Your task to perform on an android device: change notifications settings Image 0: 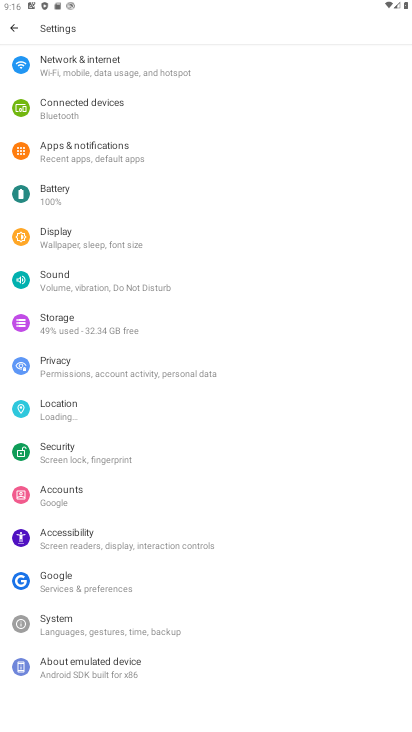
Step 0: press home button
Your task to perform on an android device: change notifications settings Image 1: 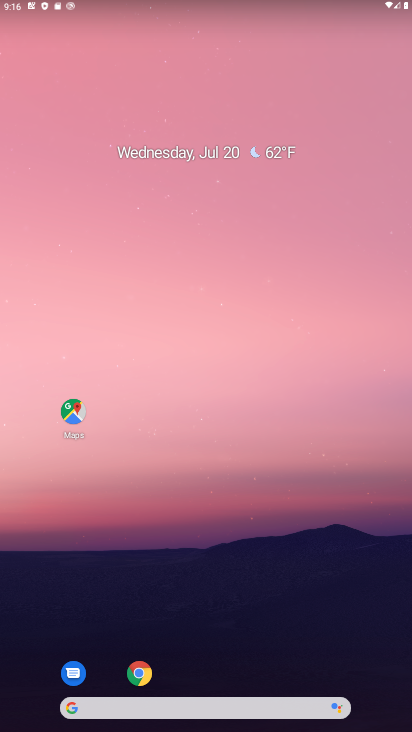
Step 1: drag from (362, 576) to (299, 61)
Your task to perform on an android device: change notifications settings Image 2: 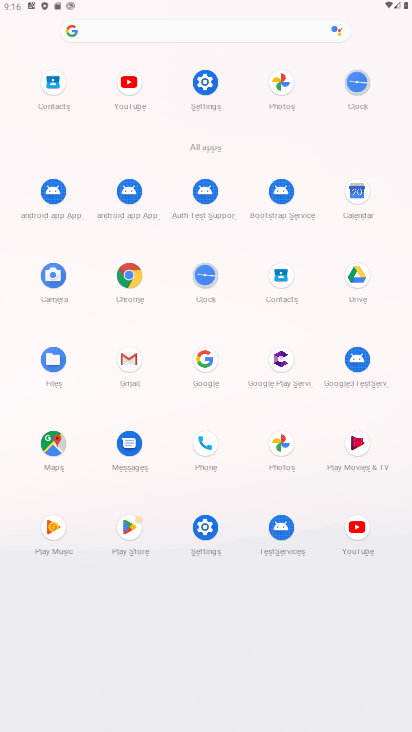
Step 2: click (201, 79)
Your task to perform on an android device: change notifications settings Image 3: 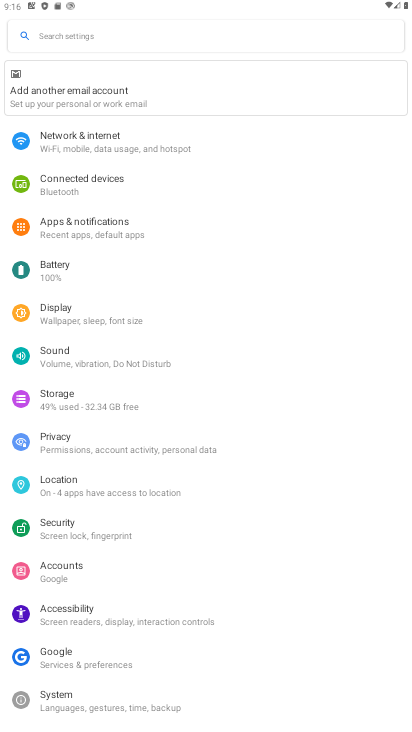
Step 3: click (99, 218)
Your task to perform on an android device: change notifications settings Image 4: 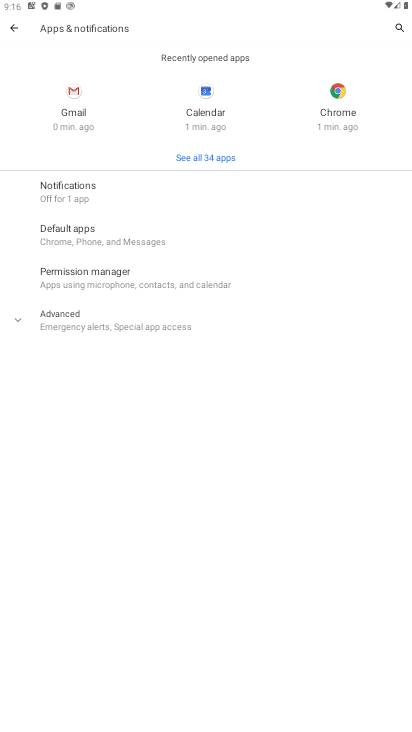
Step 4: click (63, 187)
Your task to perform on an android device: change notifications settings Image 5: 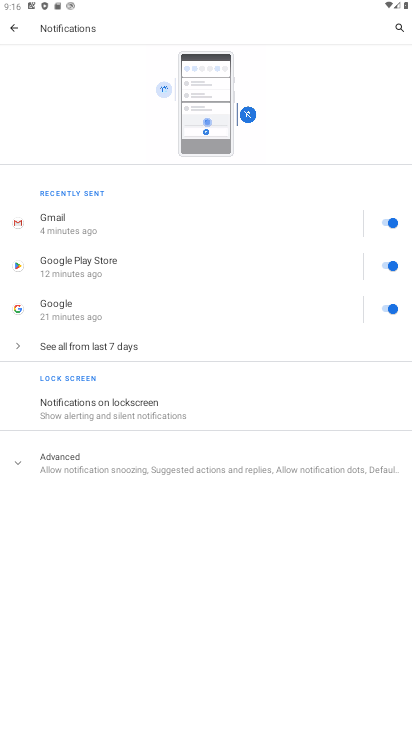
Step 5: click (14, 462)
Your task to perform on an android device: change notifications settings Image 6: 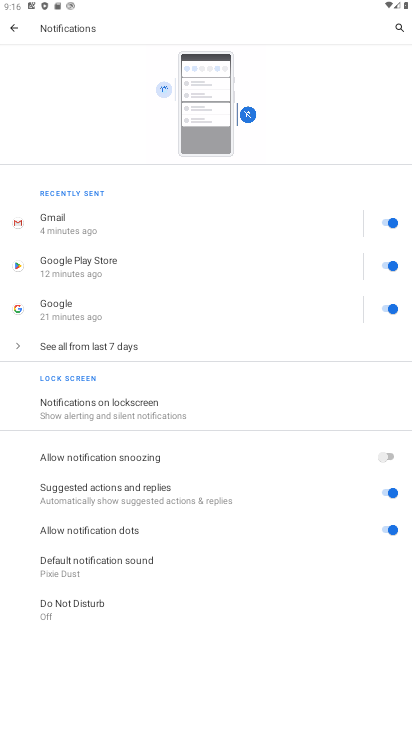
Step 6: click (380, 217)
Your task to perform on an android device: change notifications settings Image 7: 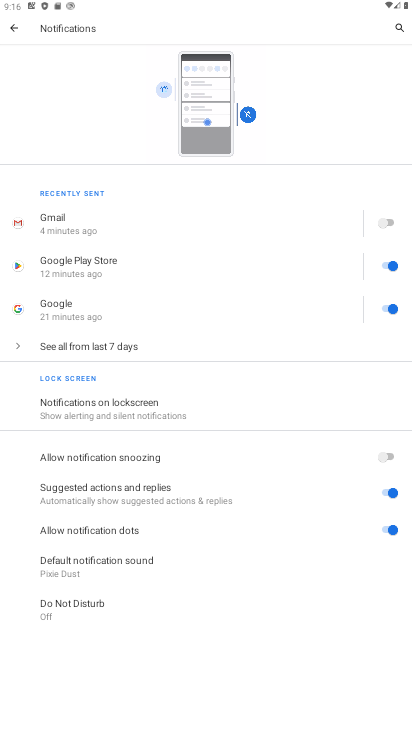
Step 7: click (382, 268)
Your task to perform on an android device: change notifications settings Image 8: 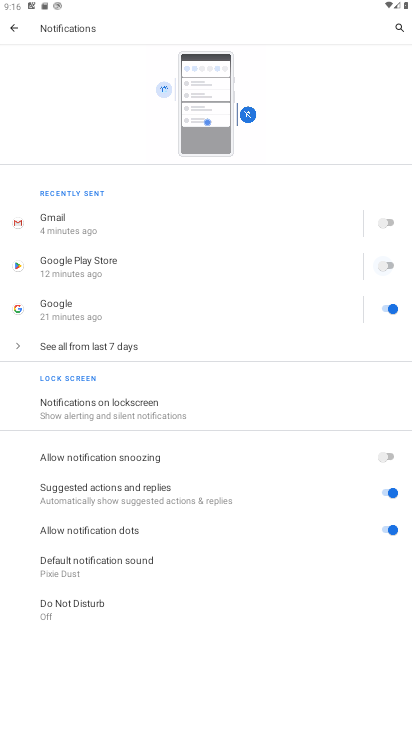
Step 8: click (385, 307)
Your task to perform on an android device: change notifications settings Image 9: 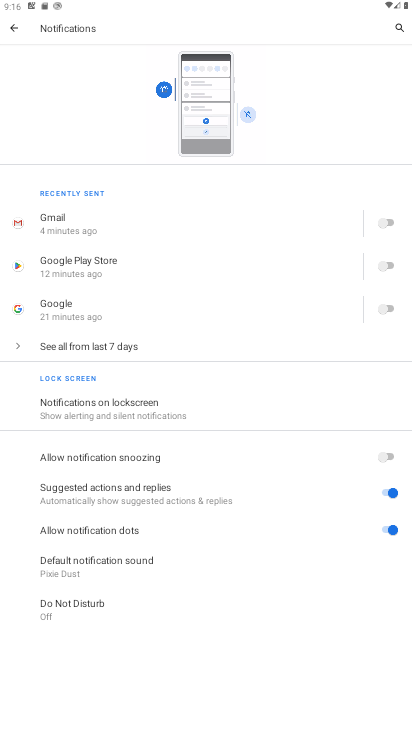
Step 9: click (378, 493)
Your task to perform on an android device: change notifications settings Image 10: 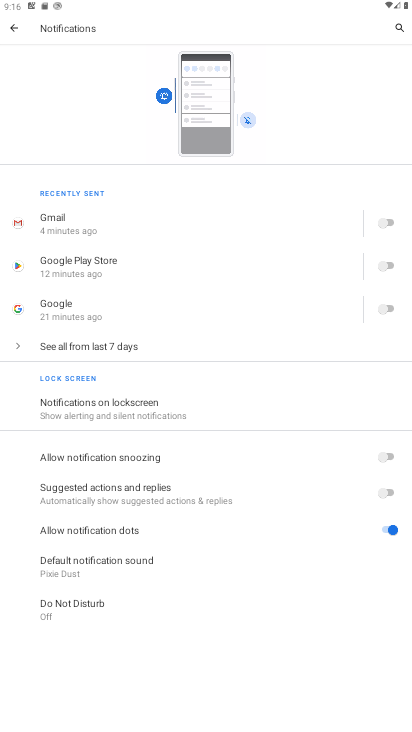
Step 10: click (383, 530)
Your task to perform on an android device: change notifications settings Image 11: 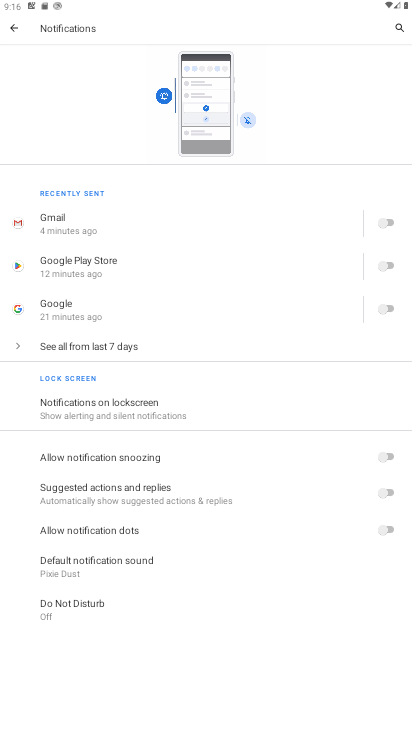
Step 11: task complete